Your task to perform on an android device: turn vacation reply on in the gmail app Image 0: 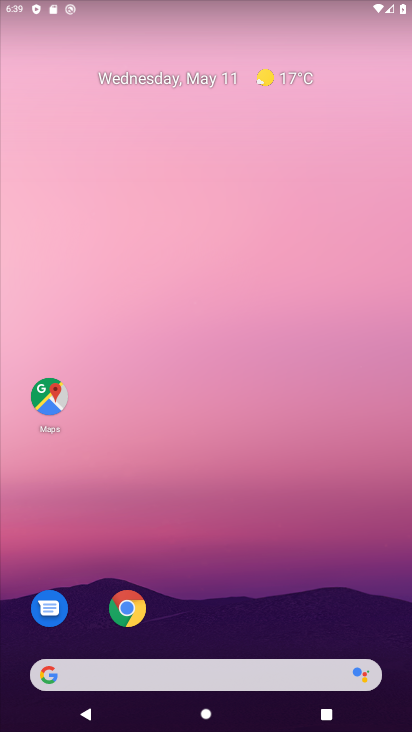
Step 0: drag from (279, 586) to (263, 131)
Your task to perform on an android device: turn vacation reply on in the gmail app Image 1: 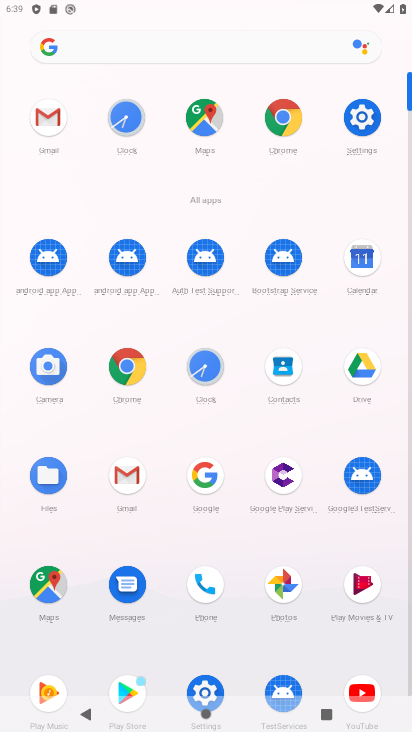
Step 1: click (142, 458)
Your task to perform on an android device: turn vacation reply on in the gmail app Image 2: 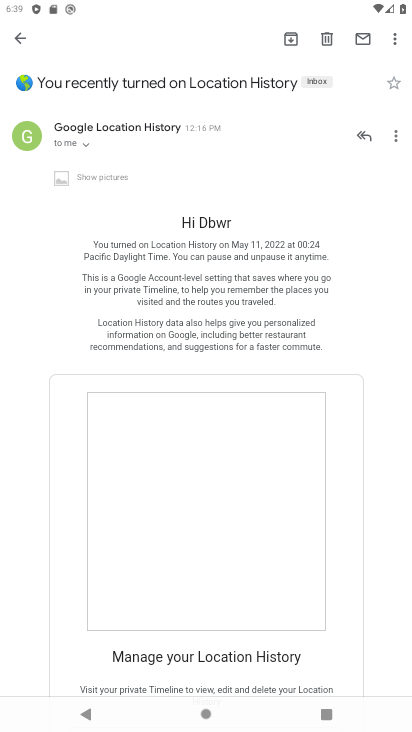
Step 2: click (18, 41)
Your task to perform on an android device: turn vacation reply on in the gmail app Image 3: 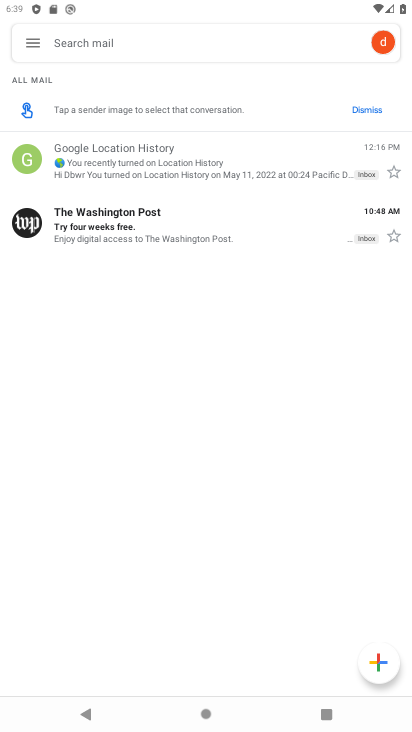
Step 3: click (36, 44)
Your task to perform on an android device: turn vacation reply on in the gmail app Image 4: 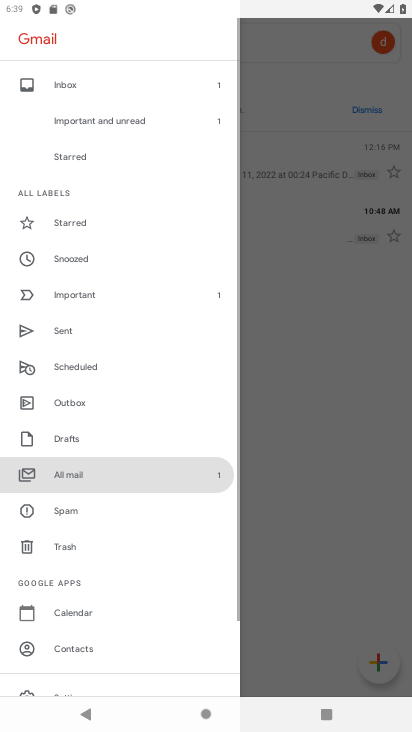
Step 4: drag from (135, 571) to (153, 225)
Your task to perform on an android device: turn vacation reply on in the gmail app Image 5: 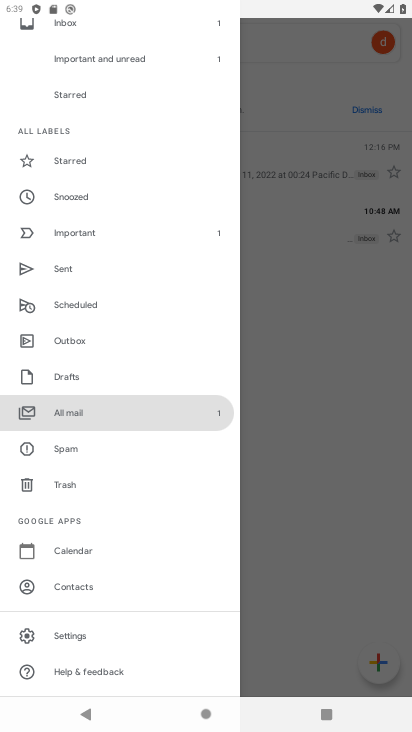
Step 5: click (97, 641)
Your task to perform on an android device: turn vacation reply on in the gmail app Image 6: 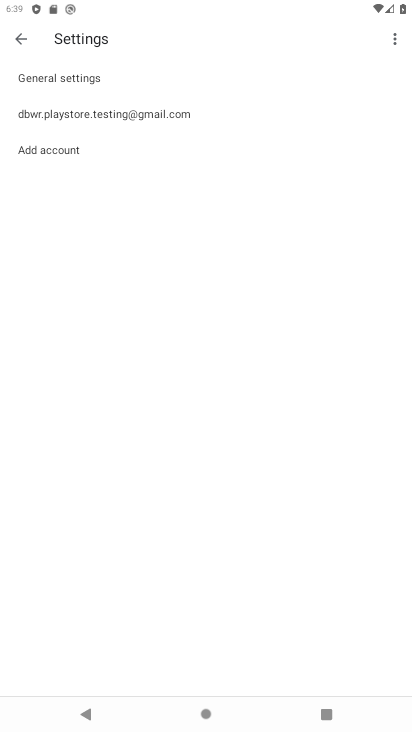
Step 6: click (156, 121)
Your task to perform on an android device: turn vacation reply on in the gmail app Image 7: 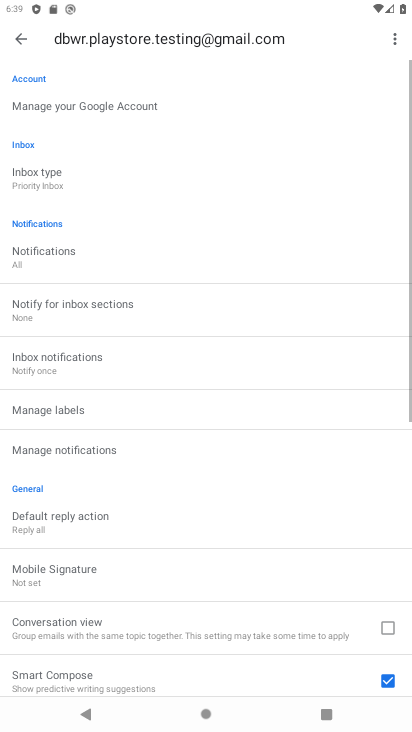
Step 7: drag from (158, 528) to (247, 201)
Your task to perform on an android device: turn vacation reply on in the gmail app Image 8: 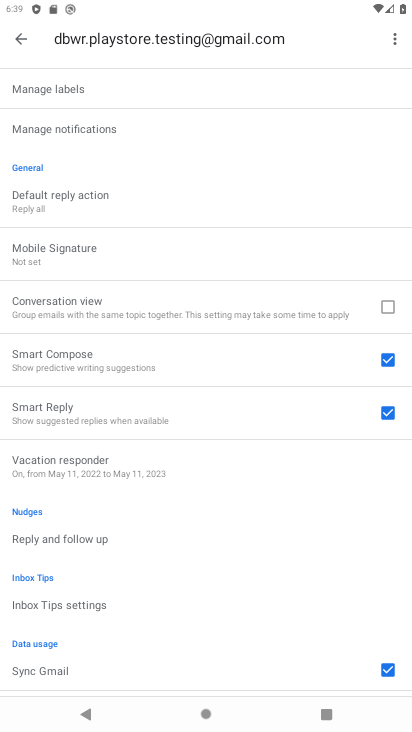
Step 8: click (161, 467)
Your task to perform on an android device: turn vacation reply on in the gmail app Image 9: 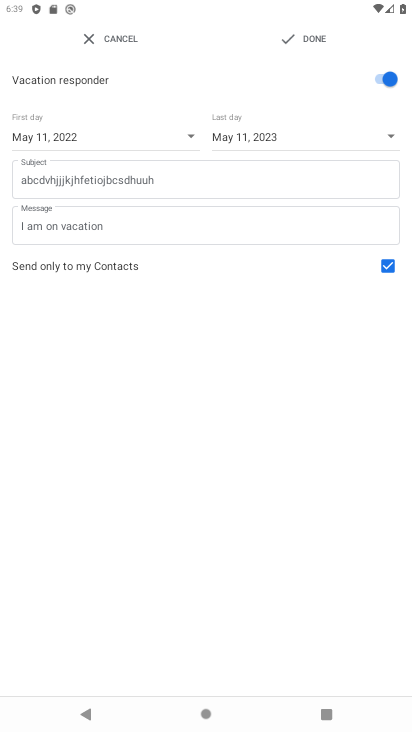
Step 9: drag from (368, 84) to (311, 62)
Your task to perform on an android device: turn vacation reply on in the gmail app Image 10: 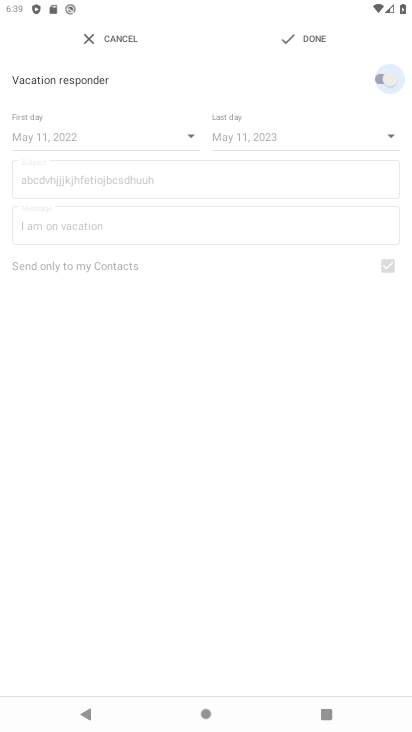
Step 10: click (311, 61)
Your task to perform on an android device: turn vacation reply on in the gmail app Image 11: 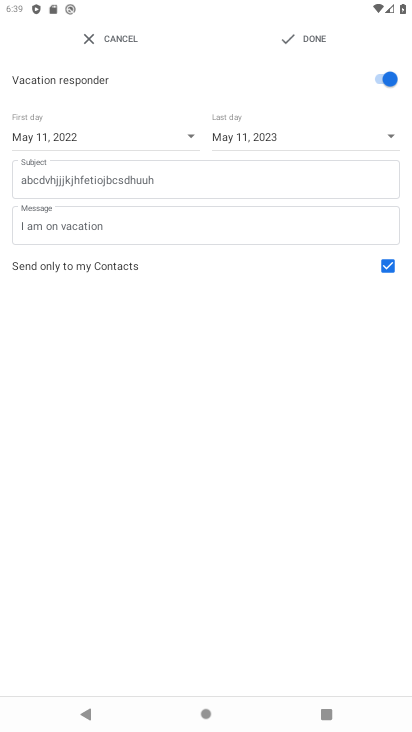
Step 11: click (311, 48)
Your task to perform on an android device: turn vacation reply on in the gmail app Image 12: 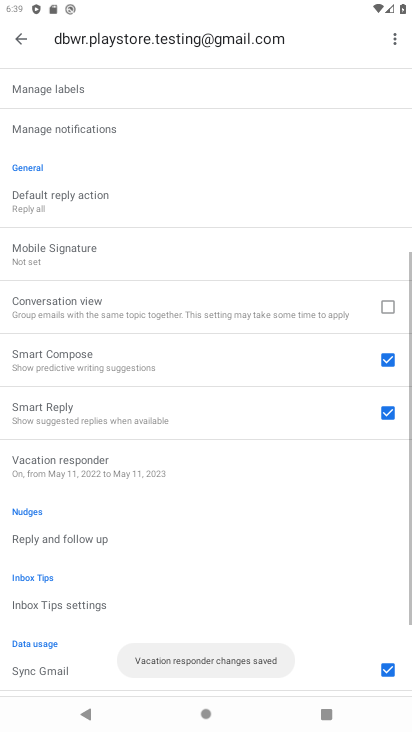
Step 12: task complete